Your task to perform on an android device: Search for Italian restaurants on Maps Image 0: 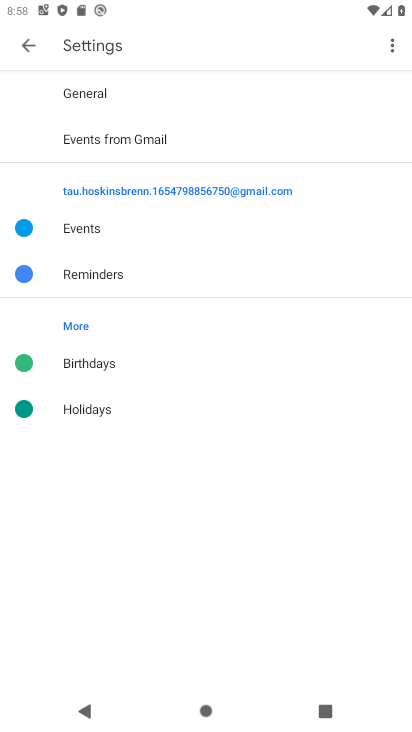
Step 0: press home button
Your task to perform on an android device: Search for Italian restaurants on Maps Image 1: 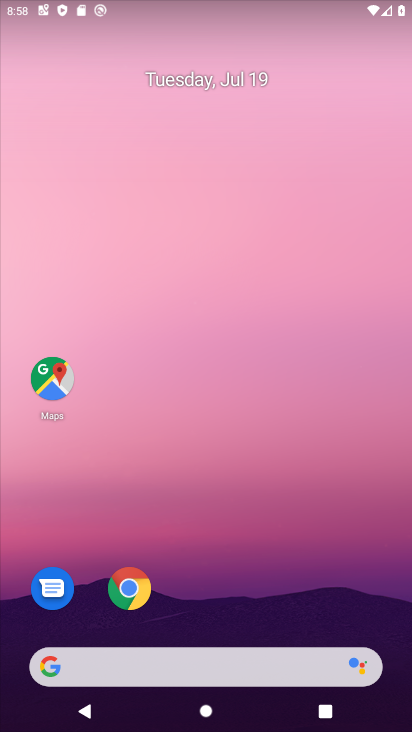
Step 1: click (46, 379)
Your task to perform on an android device: Search for Italian restaurants on Maps Image 2: 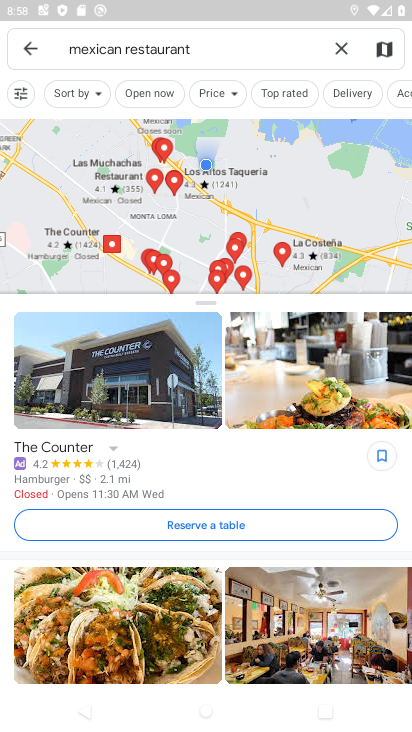
Step 2: click (337, 44)
Your task to perform on an android device: Search for Italian restaurants on Maps Image 3: 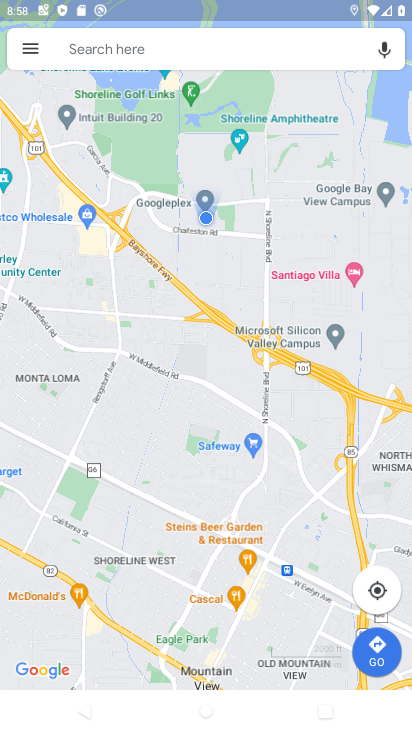
Step 3: click (112, 48)
Your task to perform on an android device: Search for Italian restaurants on Maps Image 4: 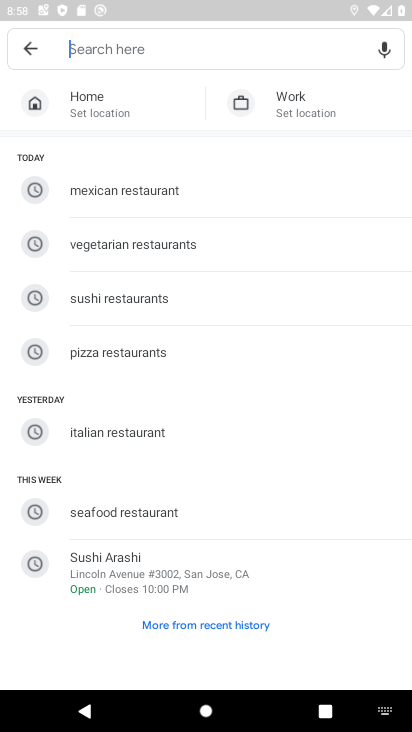
Step 4: click (103, 423)
Your task to perform on an android device: Search for Italian restaurants on Maps Image 5: 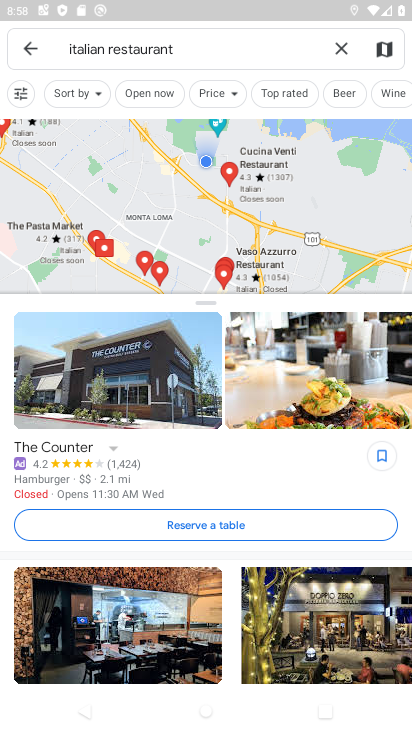
Step 5: task complete